Your task to perform on an android device: move an email to a new category in the gmail app Image 0: 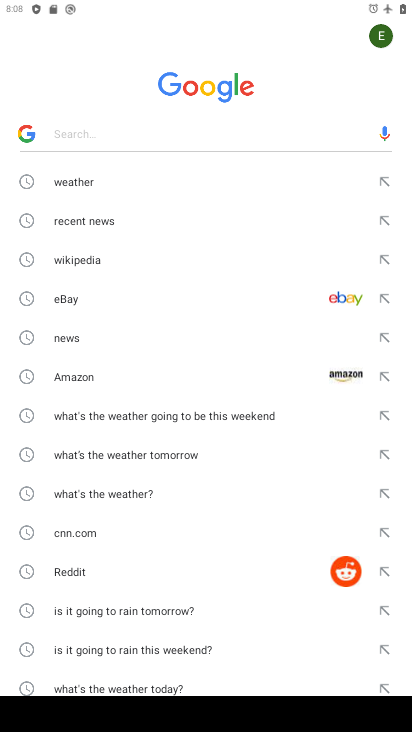
Step 0: press back button
Your task to perform on an android device: move an email to a new category in the gmail app Image 1: 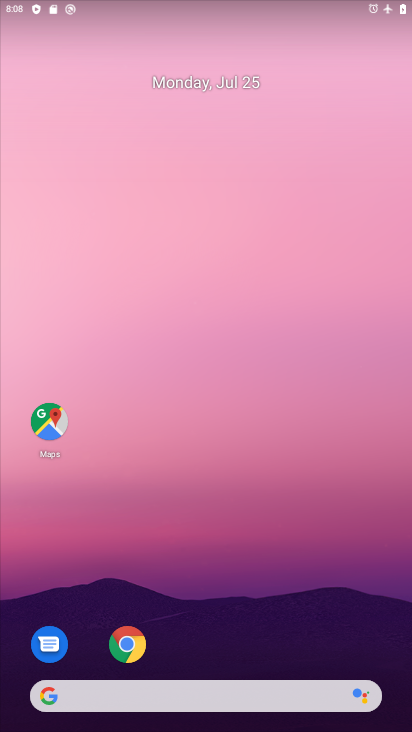
Step 1: drag from (179, 638) to (252, 111)
Your task to perform on an android device: move an email to a new category in the gmail app Image 2: 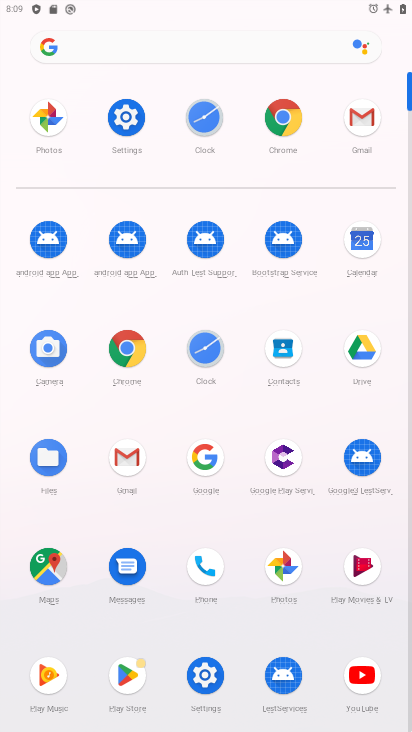
Step 2: click (361, 120)
Your task to perform on an android device: move an email to a new category in the gmail app Image 3: 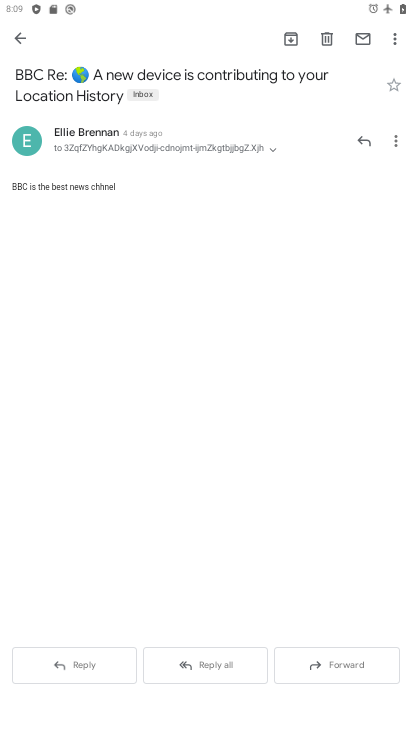
Step 3: click (140, 94)
Your task to perform on an android device: move an email to a new category in the gmail app Image 4: 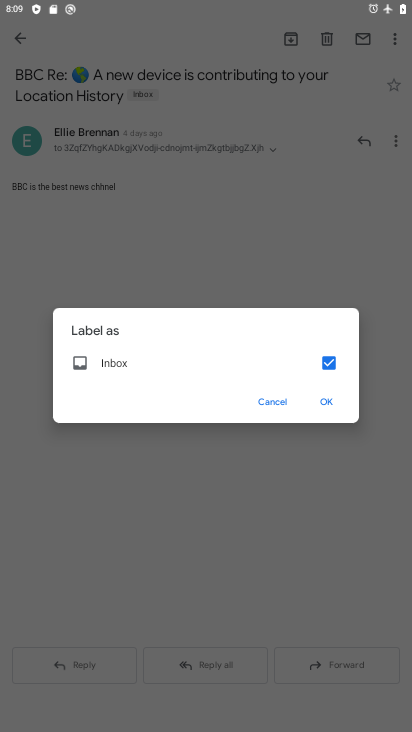
Step 4: click (328, 361)
Your task to perform on an android device: move an email to a new category in the gmail app Image 5: 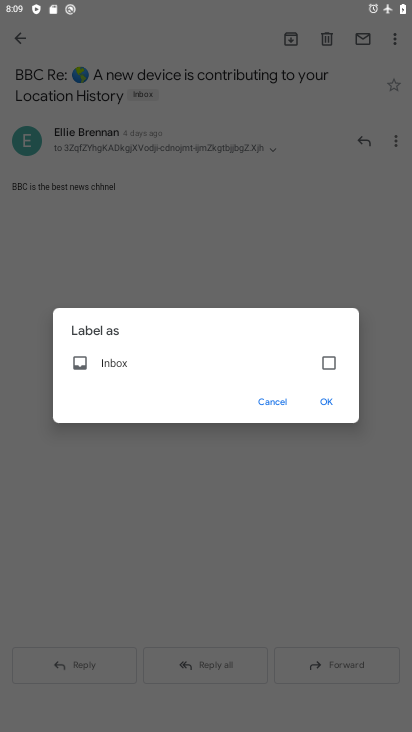
Step 5: click (328, 400)
Your task to perform on an android device: move an email to a new category in the gmail app Image 6: 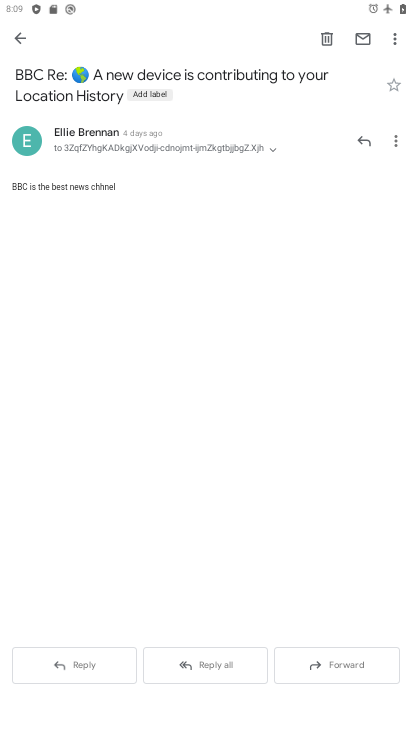
Step 6: task complete